Your task to perform on an android device: turn off data saver in the chrome app Image 0: 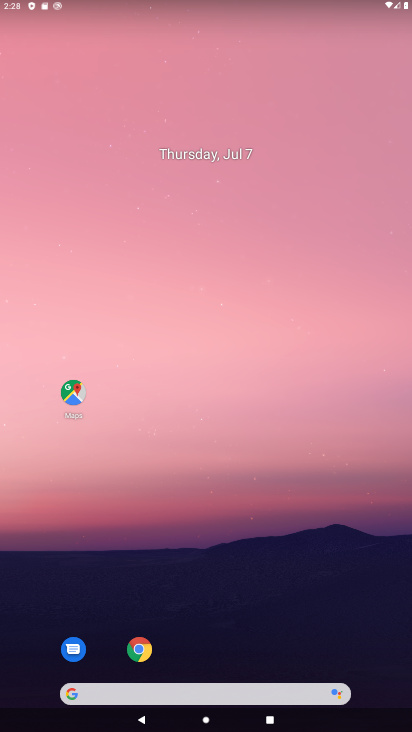
Step 0: click (142, 650)
Your task to perform on an android device: turn off data saver in the chrome app Image 1: 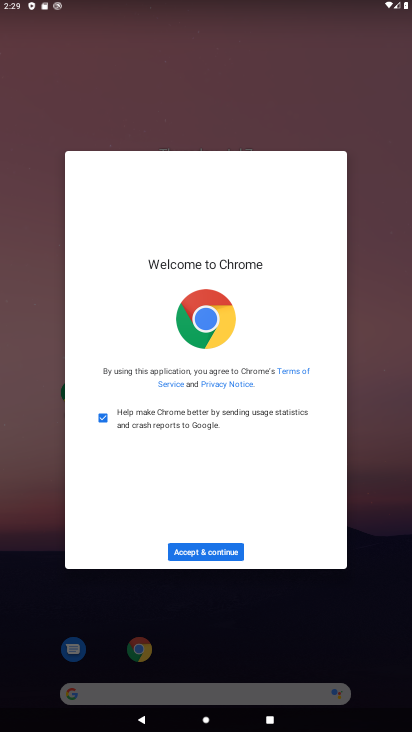
Step 1: click (201, 555)
Your task to perform on an android device: turn off data saver in the chrome app Image 2: 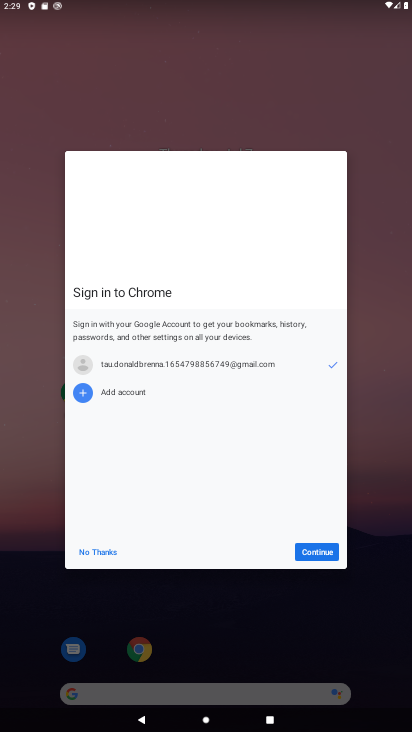
Step 2: click (315, 554)
Your task to perform on an android device: turn off data saver in the chrome app Image 3: 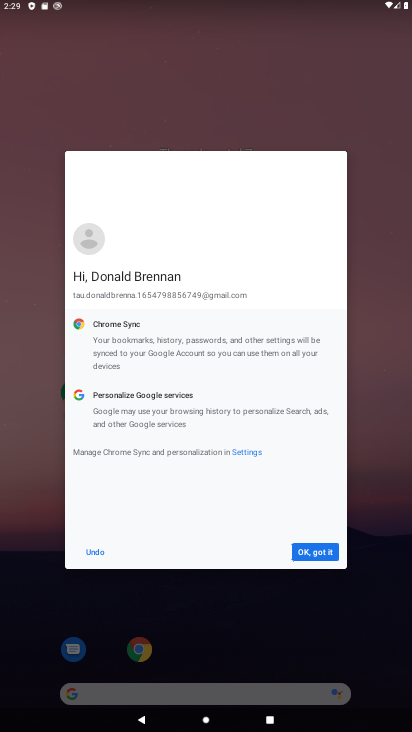
Step 3: click (308, 552)
Your task to perform on an android device: turn off data saver in the chrome app Image 4: 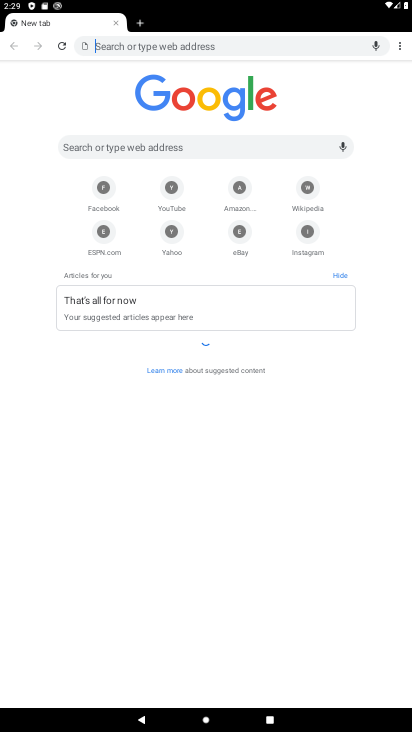
Step 4: drag from (398, 49) to (311, 211)
Your task to perform on an android device: turn off data saver in the chrome app Image 5: 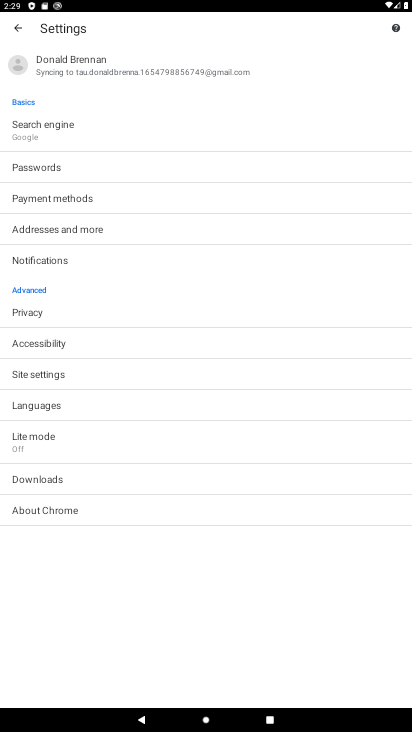
Step 5: click (33, 441)
Your task to perform on an android device: turn off data saver in the chrome app Image 6: 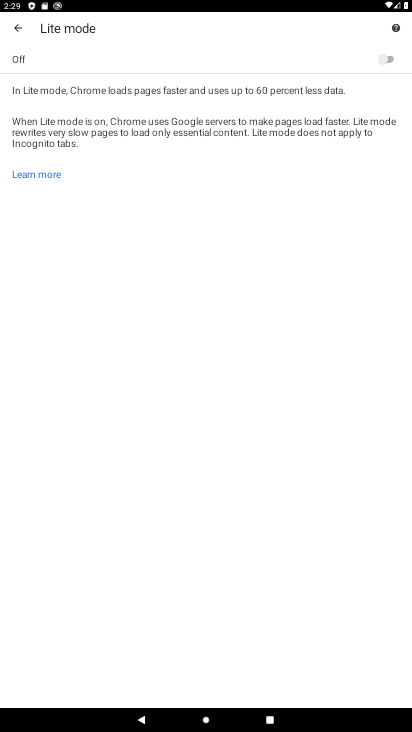
Step 6: task complete